Your task to perform on an android device: Show me popular games on the Play Store Image 0: 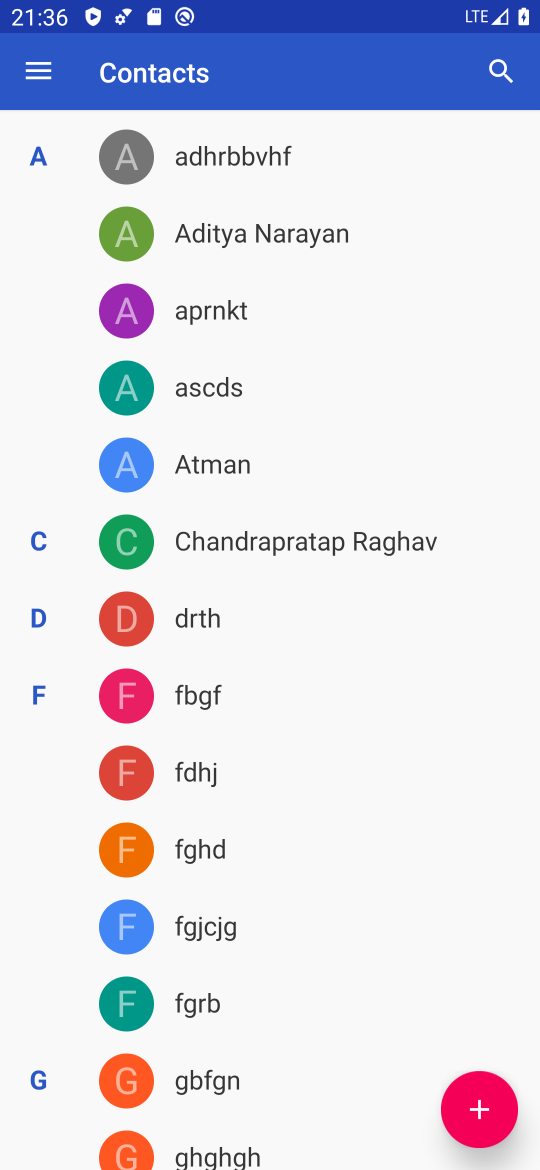
Step 0: press home button
Your task to perform on an android device: Show me popular games on the Play Store Image 1: 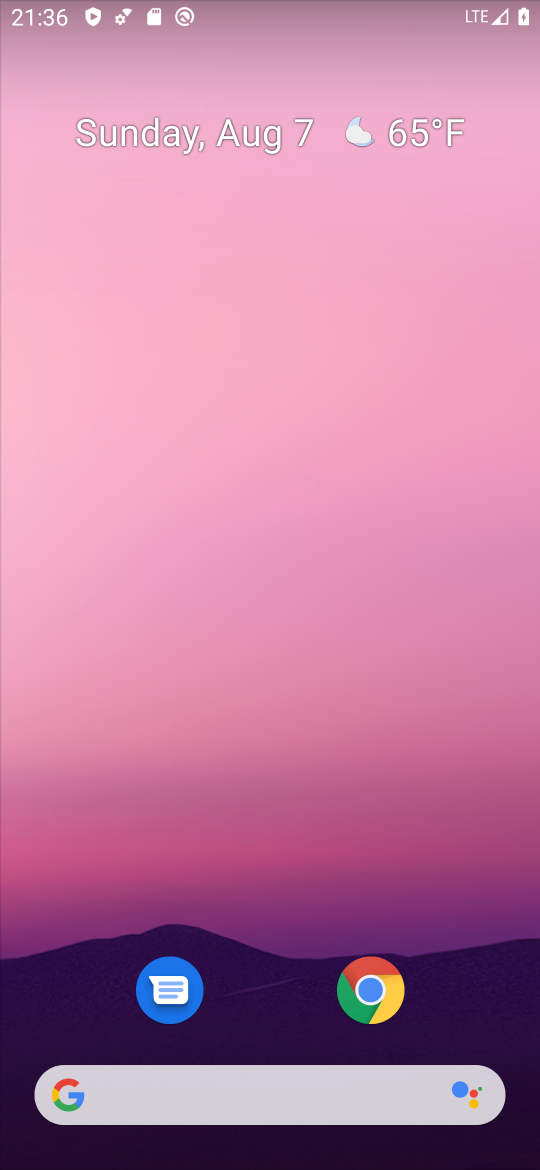
Step 1: drag from (311, 797) to (356, 3)
Your task to perform on an android device: Show me popular games on the Play Store Image 2: 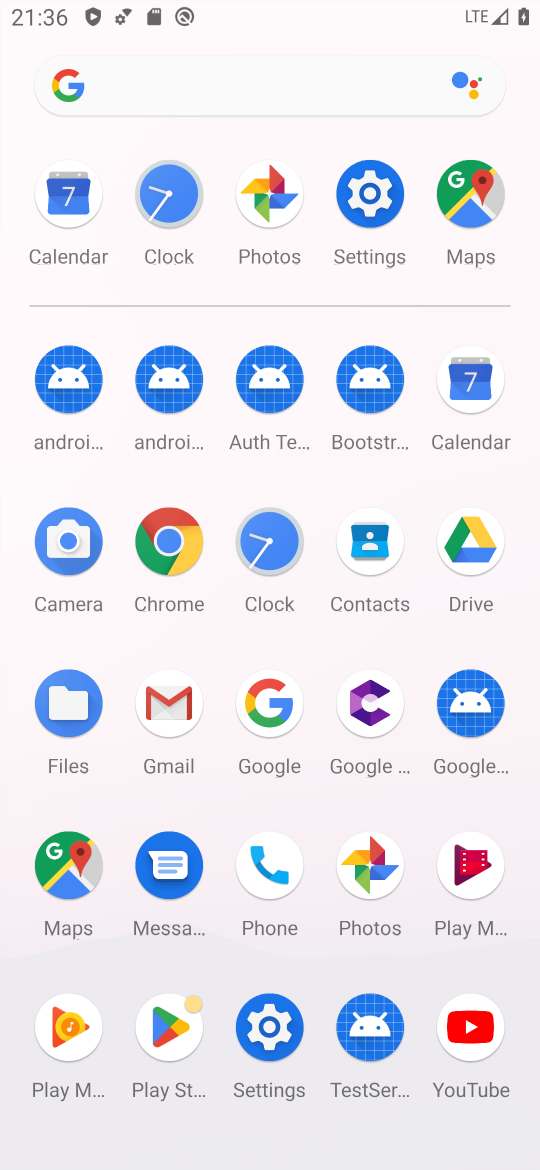
Step 2: click (169, 1025)
Your task to perform on an android device: Show me popular games on the Play Store Image 3: 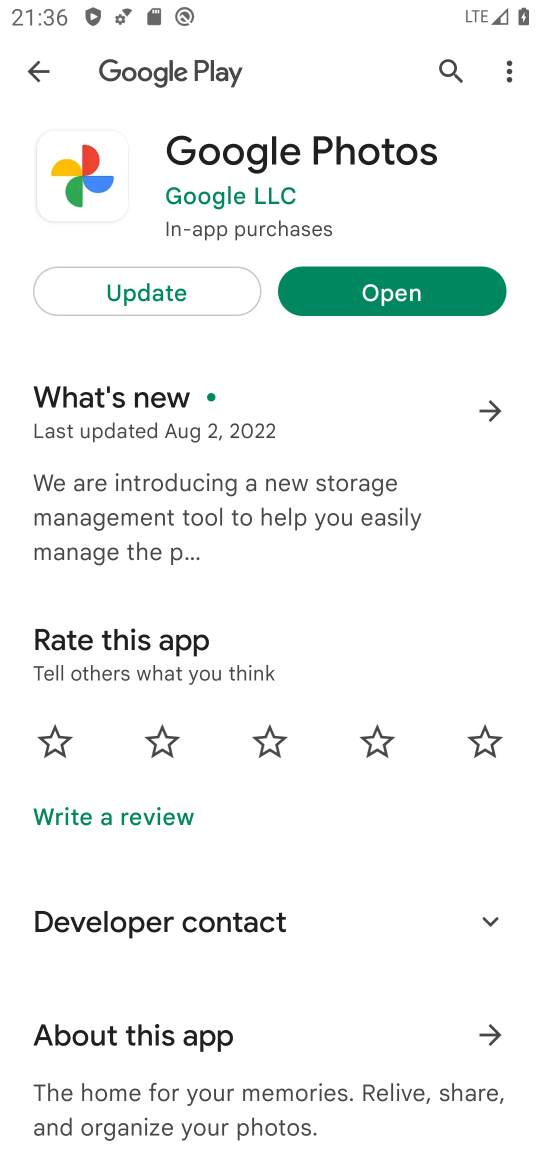
Step 3: click (43, 63)
Your task to perform on an android device: Show me popular games on the Play Store Image 4: 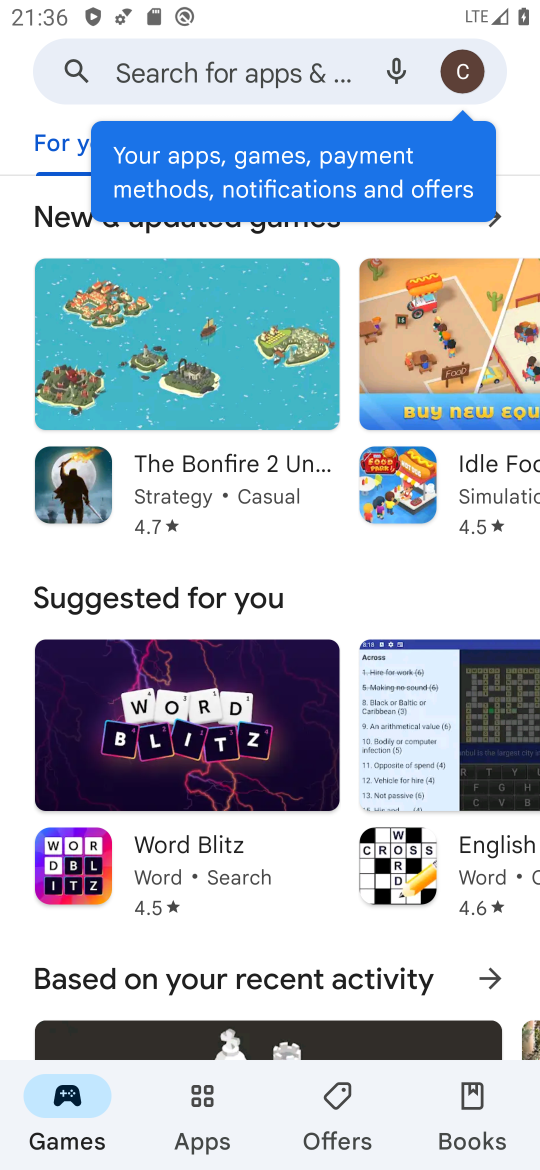
Step 4: task complete